Your task to perform on an android device: What's on my calendar today? Image 0: 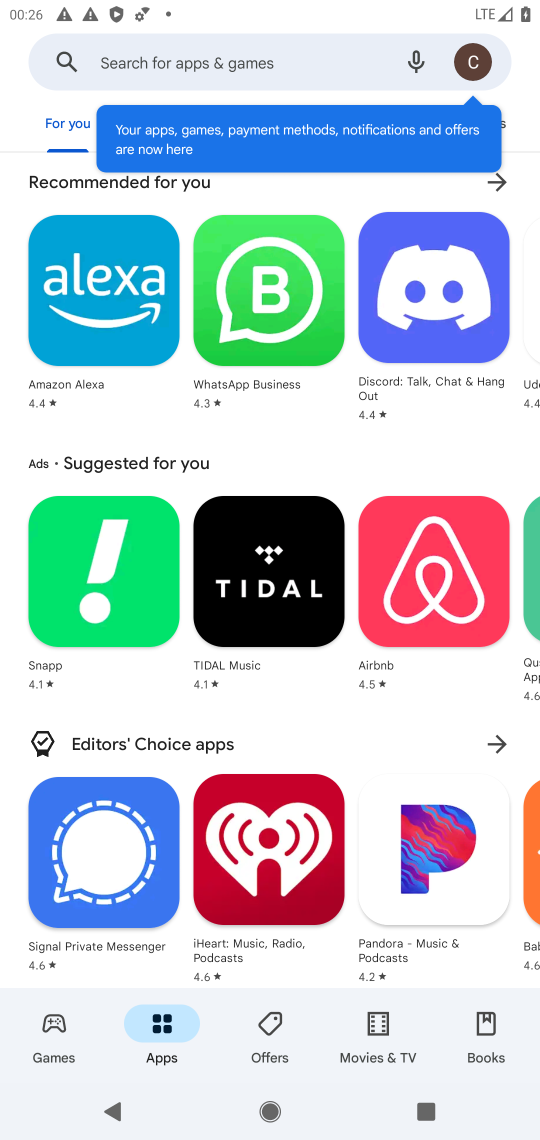
Step 0: press home button
Your task to perform on an android device: What's on my calendar today? Image 1: 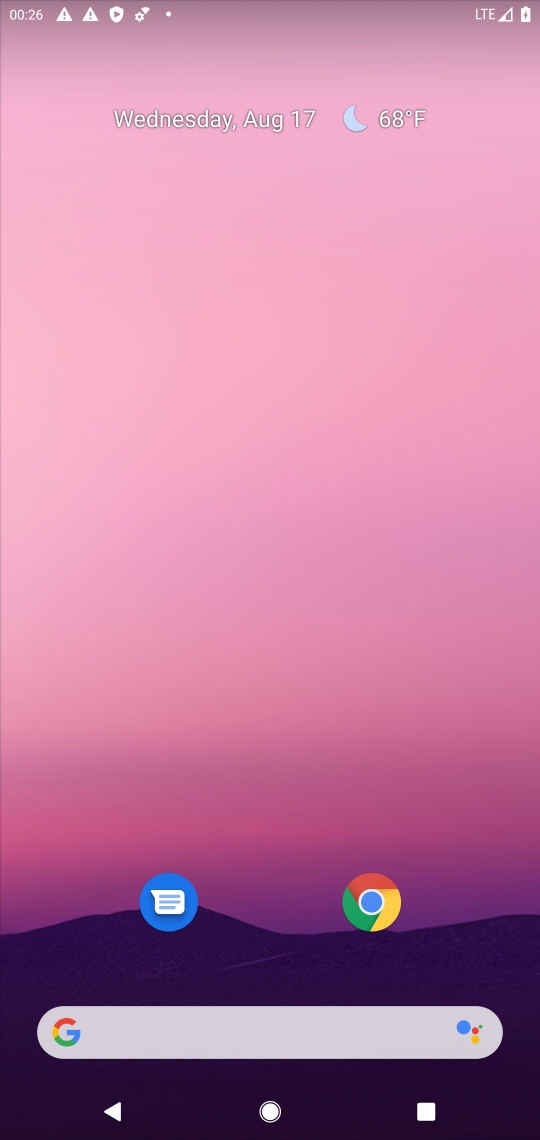
Step 1: drag from (289, 762) to (442, 49)
Your task to perform on an android device: What's on my calendar today? Image 2: 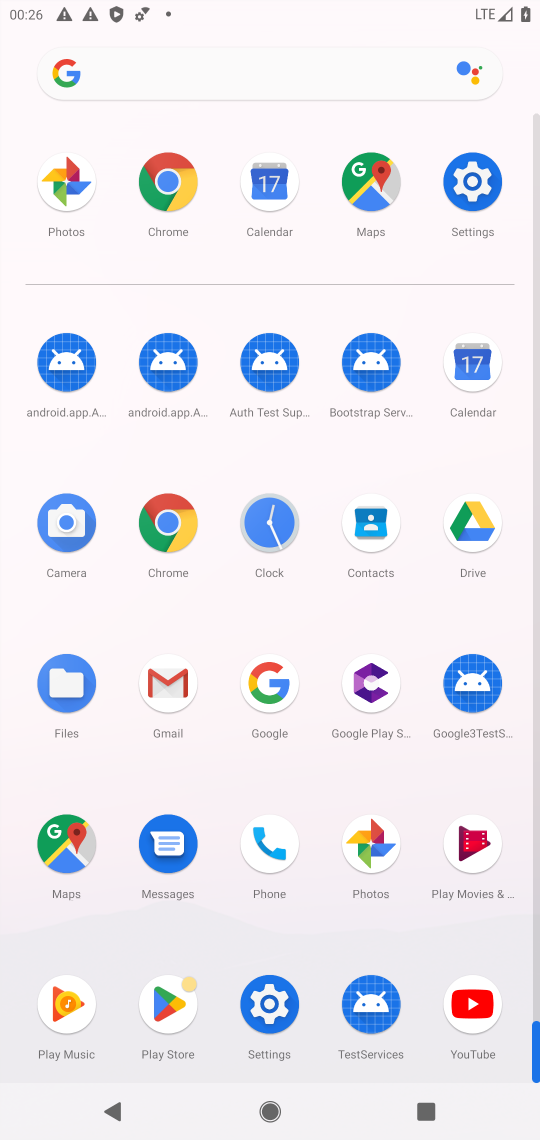
Step 2: click (476, 368)
Your task to perform on an android device: What's on my calendar today? Image 3: 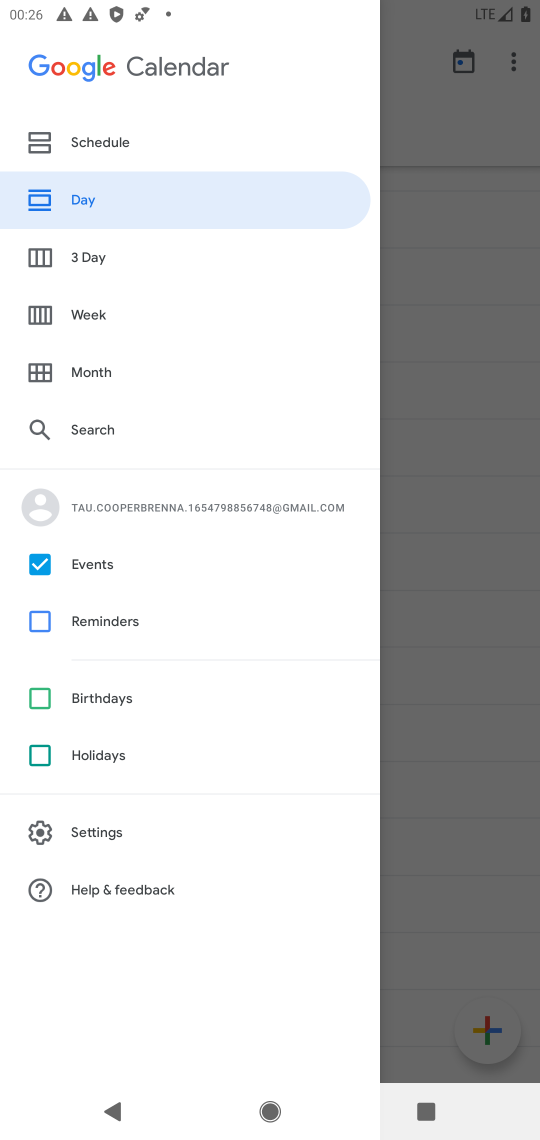
Step 3: click (51, 614)
Your task to perform on an android device: What's on my calendar today? Image 4: 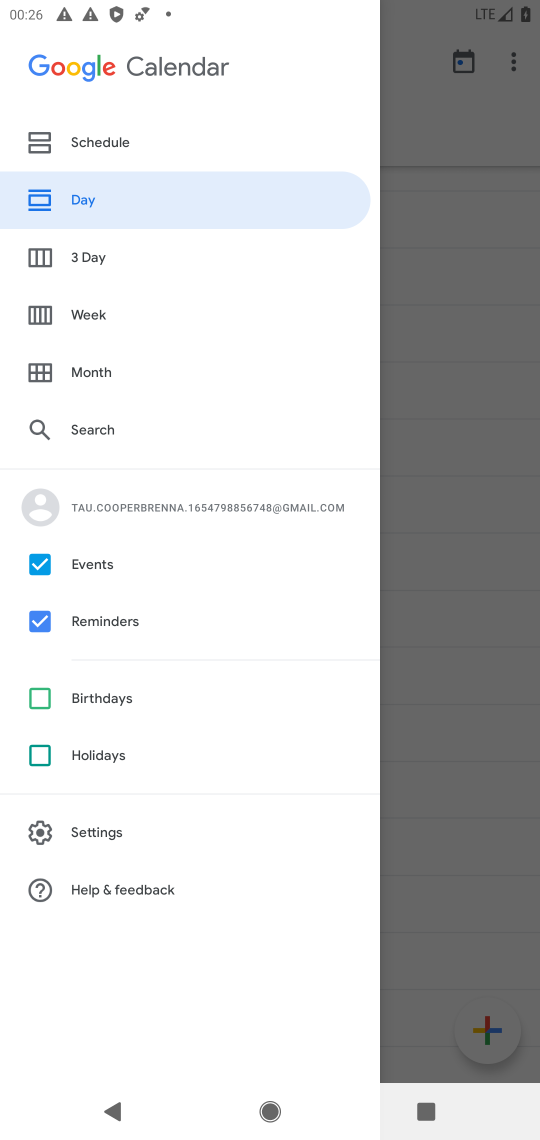
Step 4: click (60, 698)
Your task to perform on an android device: What's on my calendar today? Image 5: 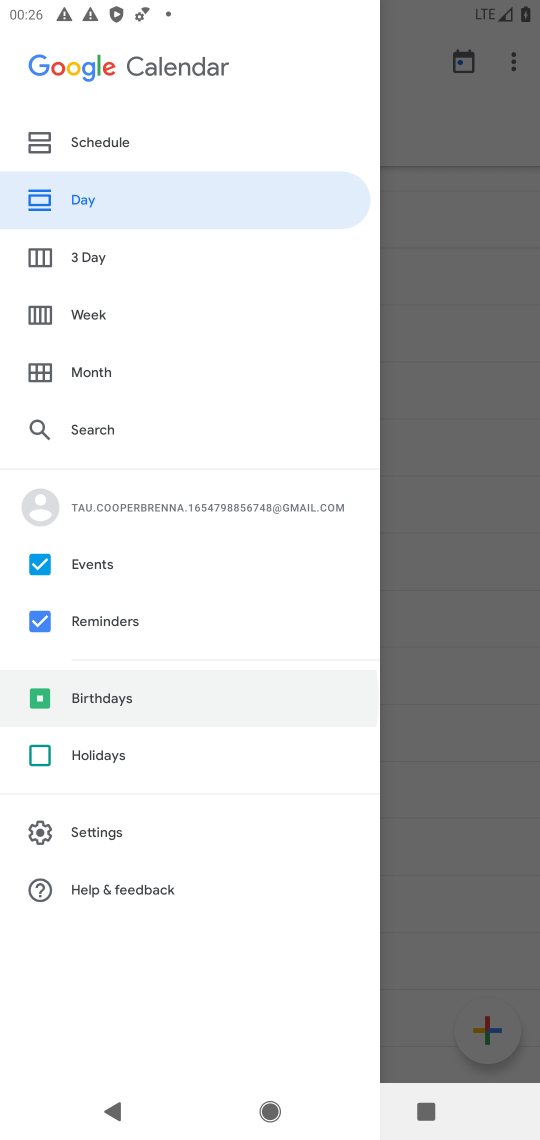
Step 5: click (58, 759)
Your task to perform on an android device: What's on my calendar today? Image 6: 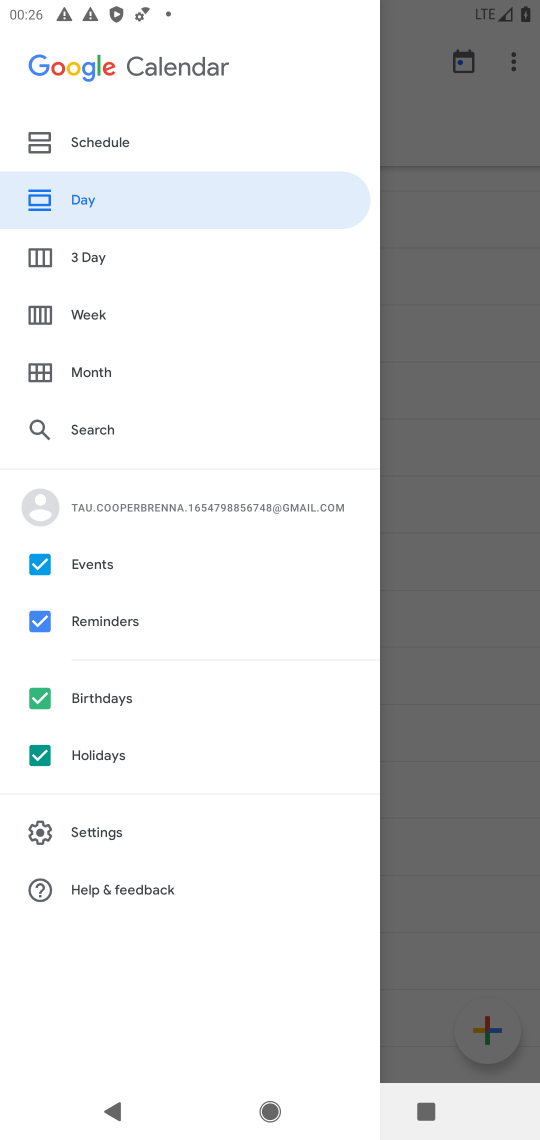
Step 6: click (173, 191)
Your task to perform on an android device: What's on my calendar today? Image 7: 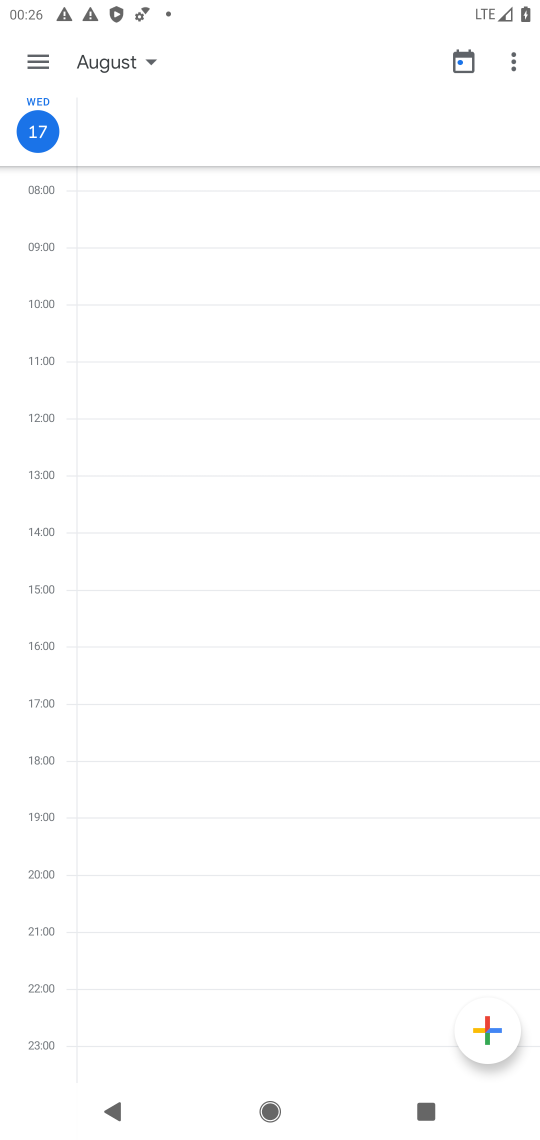
Step 7: task complete